Your task to perform on an android device: toggle priority inbox in the gmail app Image 0: 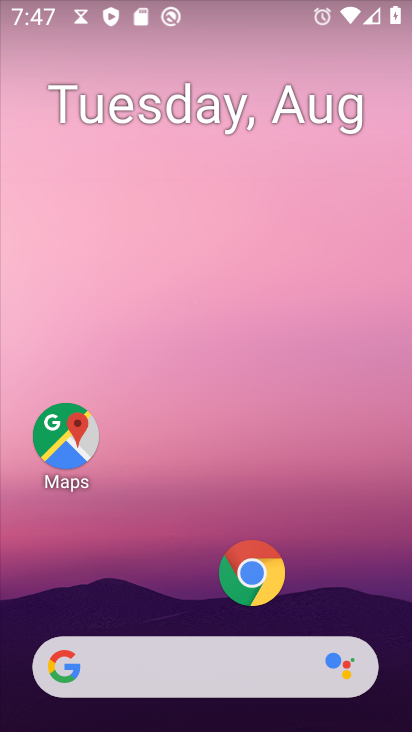
Step 0: press home button
Your task to perform on an android device: toggle priority inbox in the gmail app Image 1: 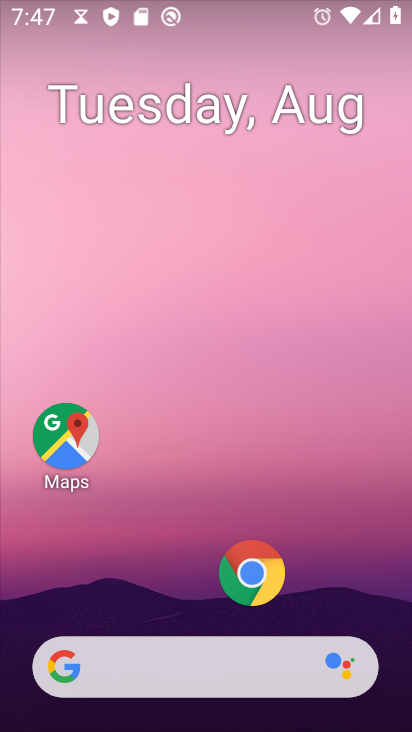
Step 1: drag from (186, 608) to (187, 38)
Your task to perform on an android device: toggle priority inbox in the gmail app Image 2: 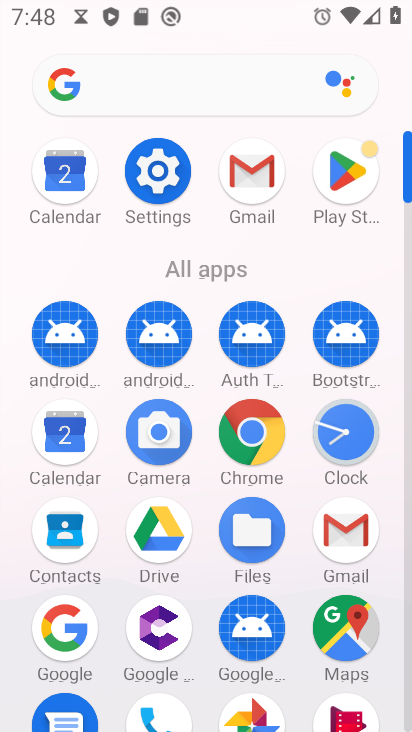
Step 2: click (238, 160)
Your task to perform on an android device: toggle priority inbox in the gmail app Image 3: 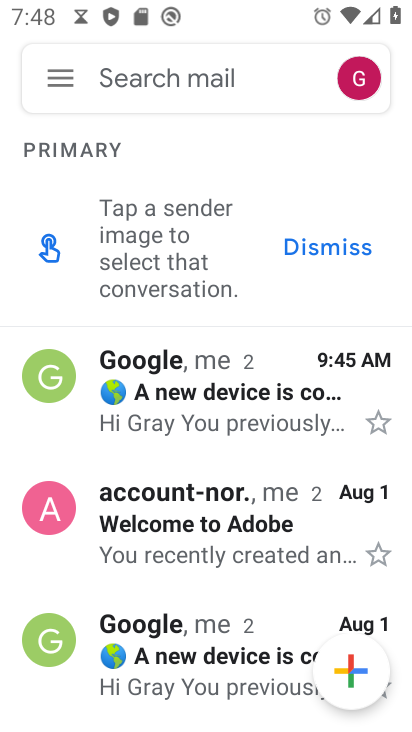
Step 3: click (59, 73)
Your task to perform on an android device: toggle priority inbox in the gmail app Image 4: 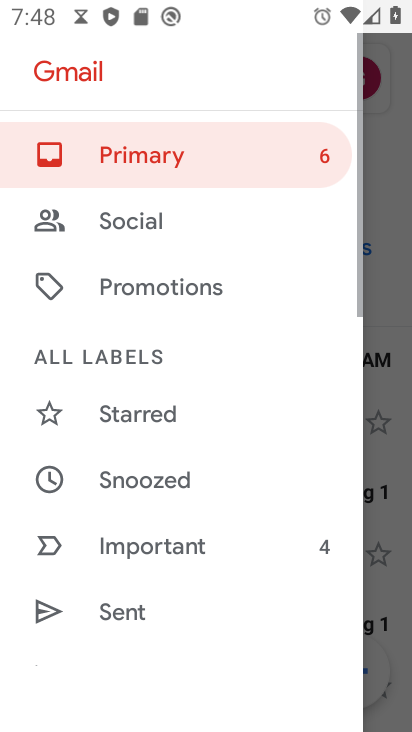
Step 4: drag from (143, 649) to (193, 90)
Your task to perform on an android device: toggle priority inbox in the gmail app Image 5: 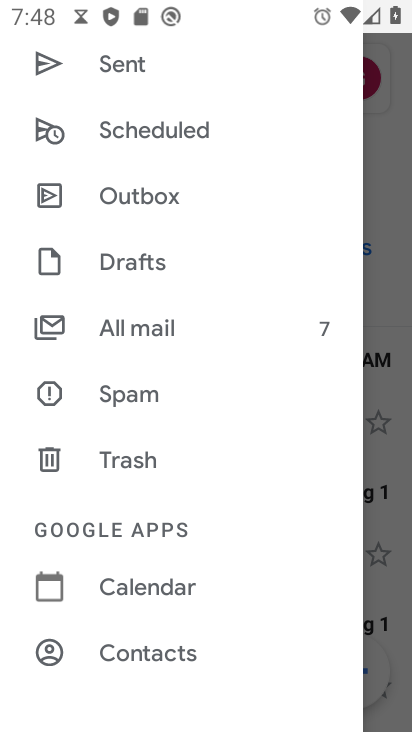
Step 5: drag from (168, 622) to (214, 126)
Your task to perform on an android device: toggle priority inbox in the gmail app Image 6: 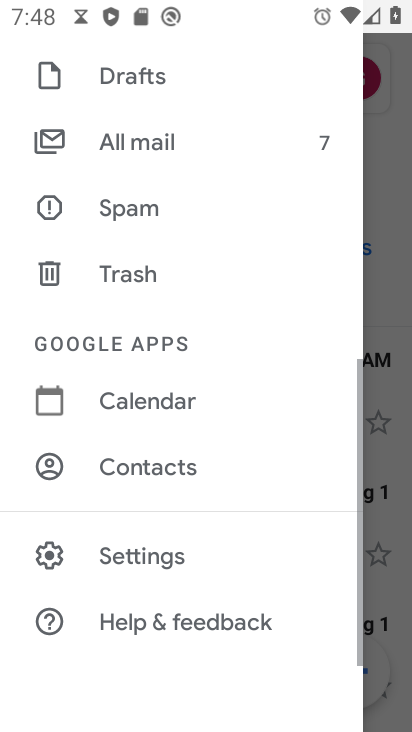
Step 6: click (165, 561)
Your task to perform on an android device: toggle priority inbox in the gmail app Image 7: 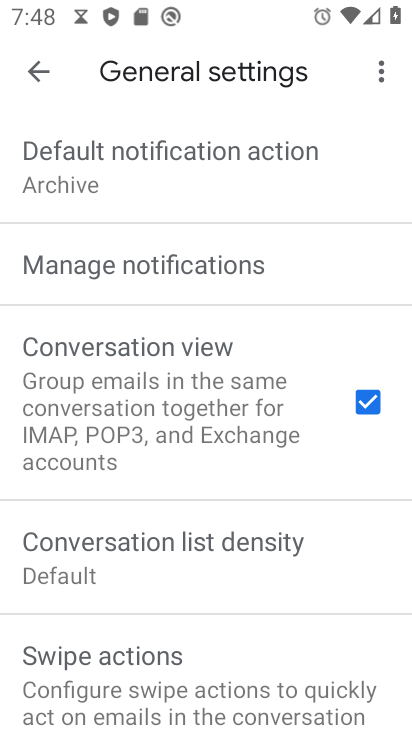
Step 7: click (39, 63)
Your task to perform on an android device: toggle priority inbox in the gmail app Image 8: 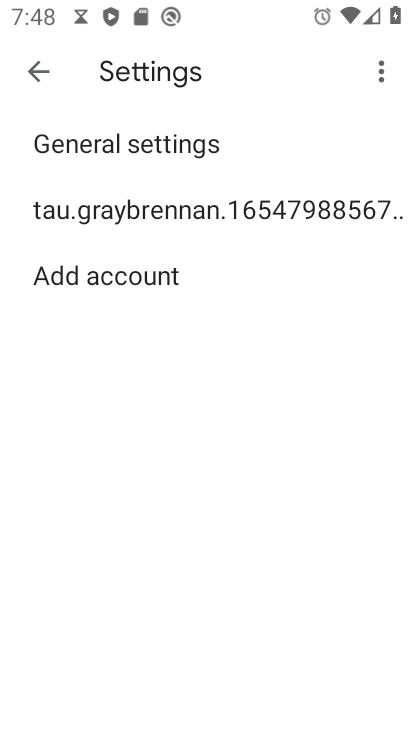
Step 8: click (156, 213)
Your task to perform on an android device: toggle priority inbox in the gmail app Image 9: 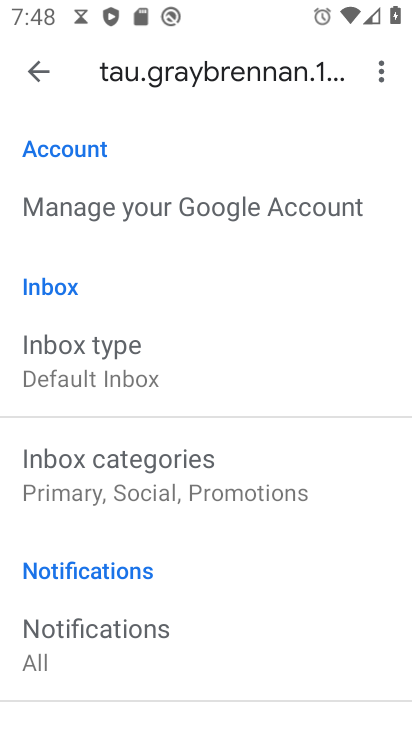
Step 9: click (120, 364)
Your task to perform on an android device: toggle priority inbox in the gmail app Image 10: 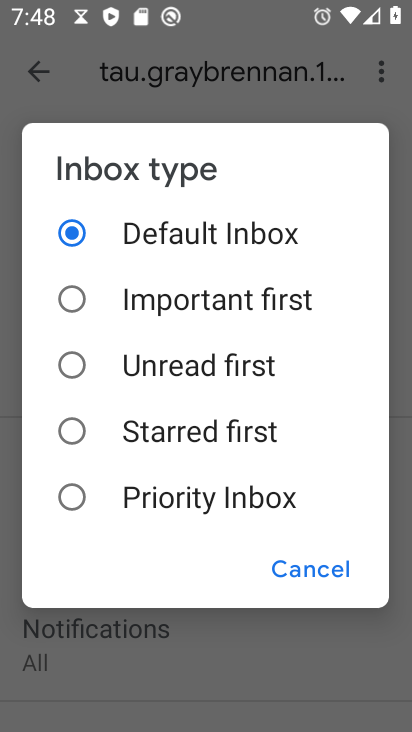
Step 10: click (70, 496)
Your task to perform on an android device: toggle priority inbox in the gmail app Image 11: 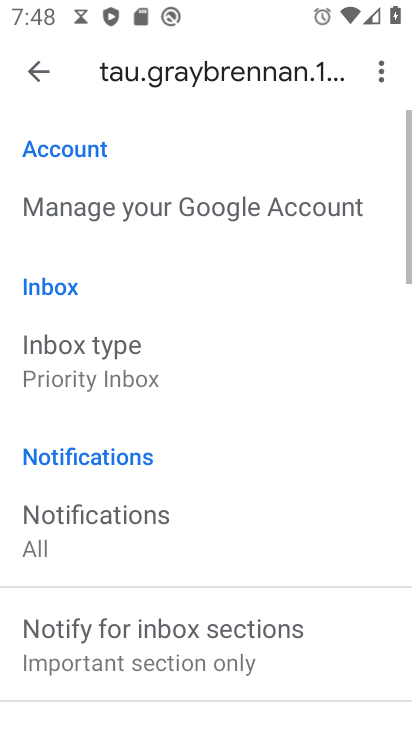
Step 11: task complete